Your task to perform on an android device: Search for sushi restaurants on Maps Image 0: 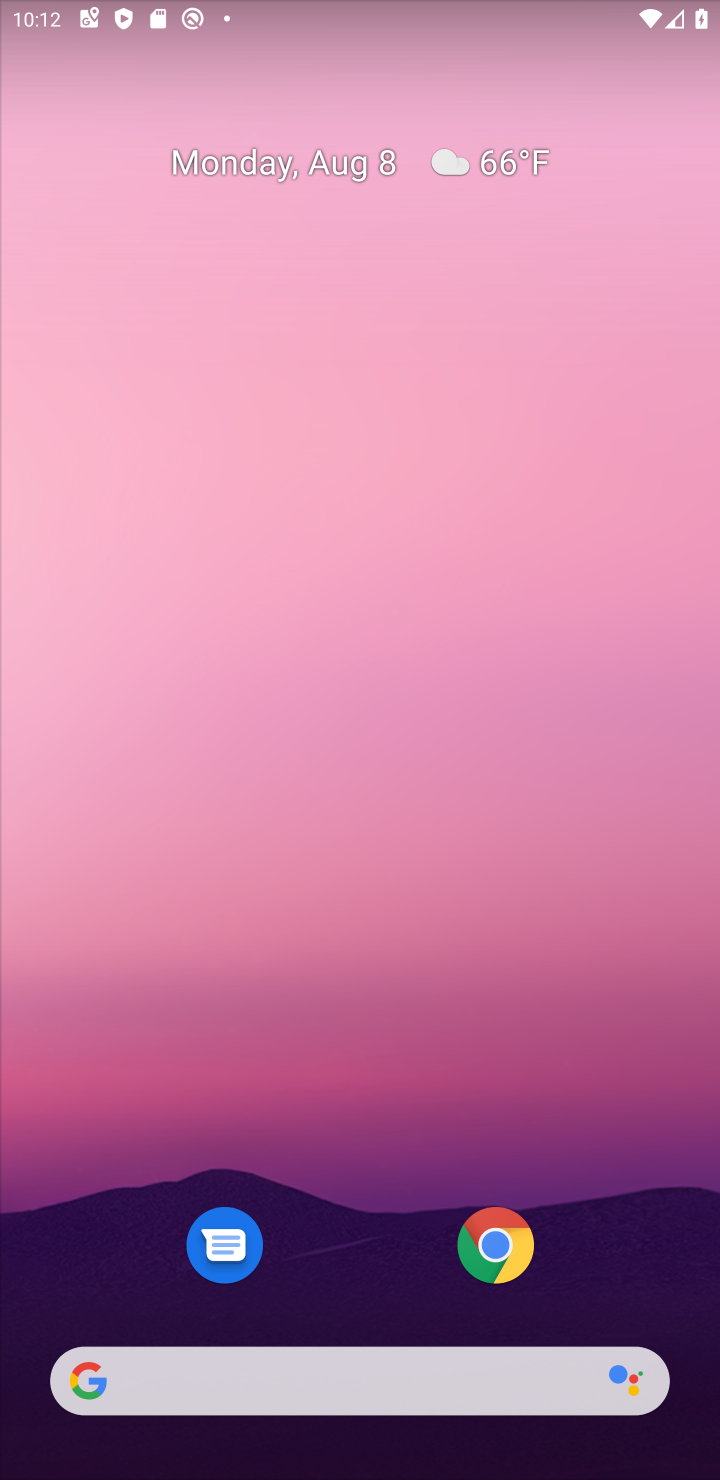
Step 0: drag from (361, 1127) to (390, 59)
Your task to perform on an android device: Search for sushi restaurants on Maps Image 1: 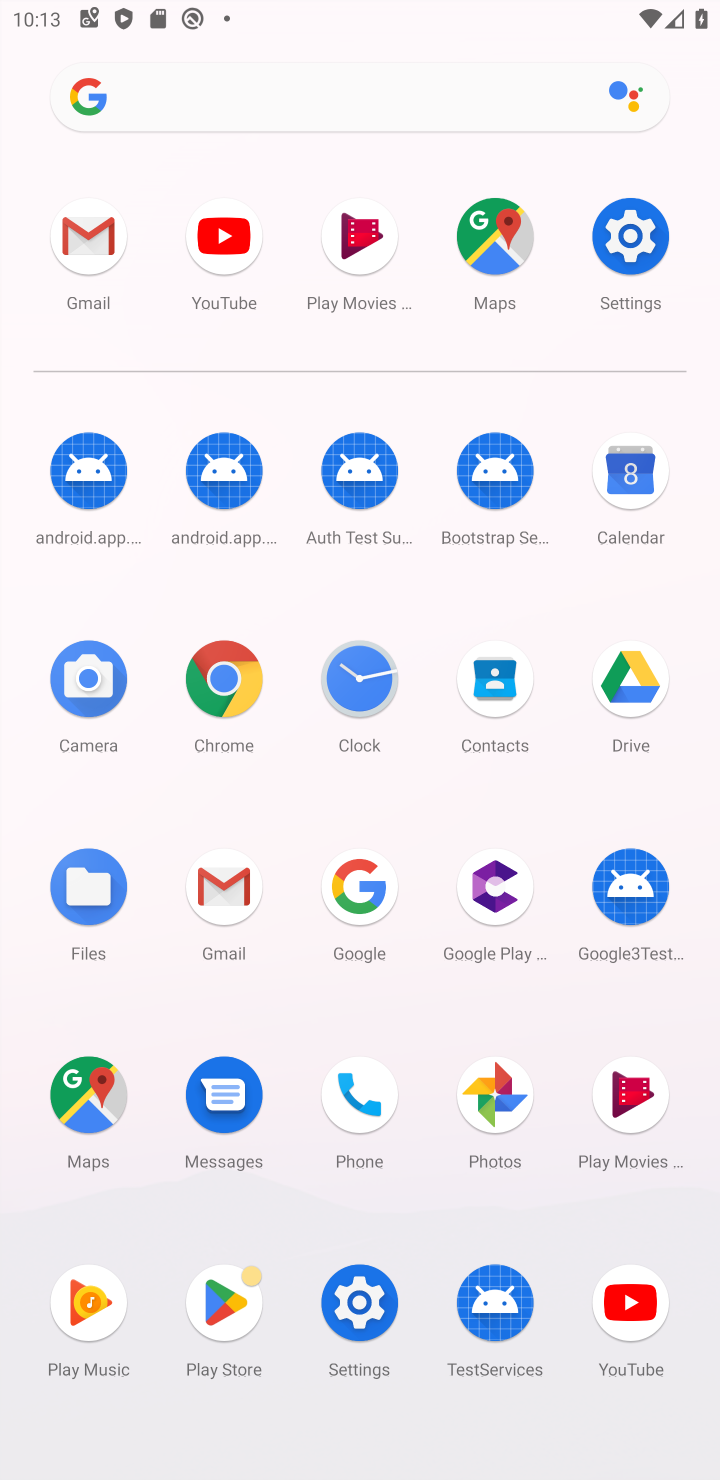
Step 1: click (91, 1095)
Your task to perform on an android device: Search for sushi restaurants on Maps Image 2: 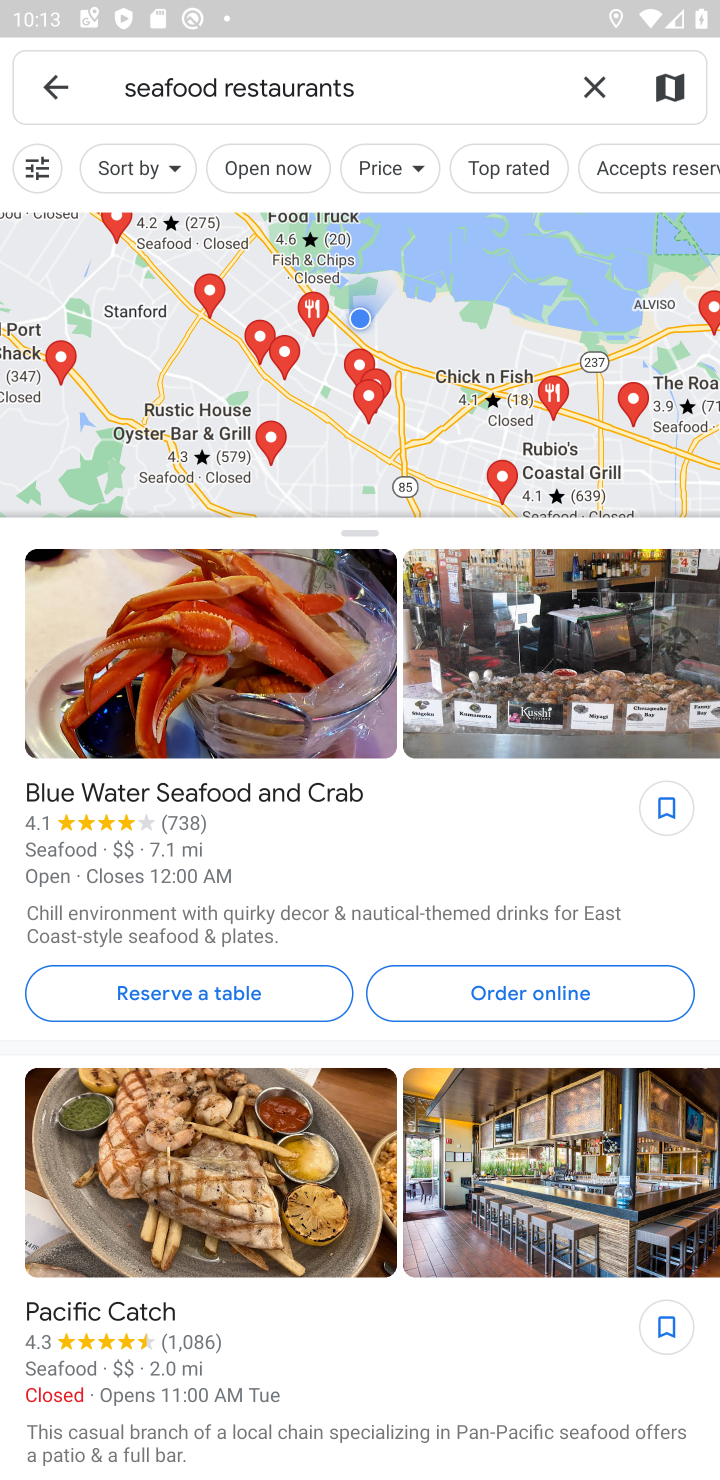
Step 2: click (595, 77)
Your task to perform on an android device: Search for sushi restaurants on Maps Image 3: 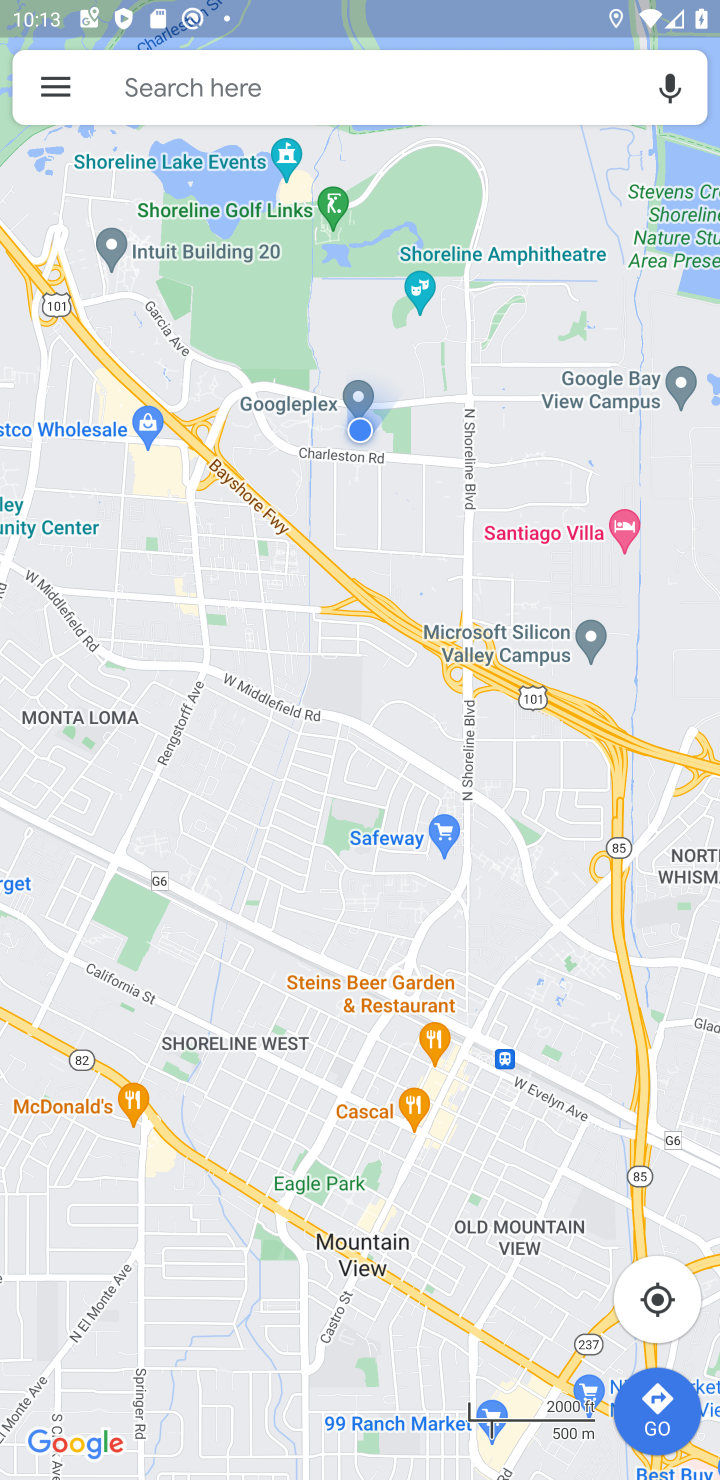
Step 3: click (286, 78)
Your task to perform on an android device: Search for sushi restaurants on Maps Image 4: 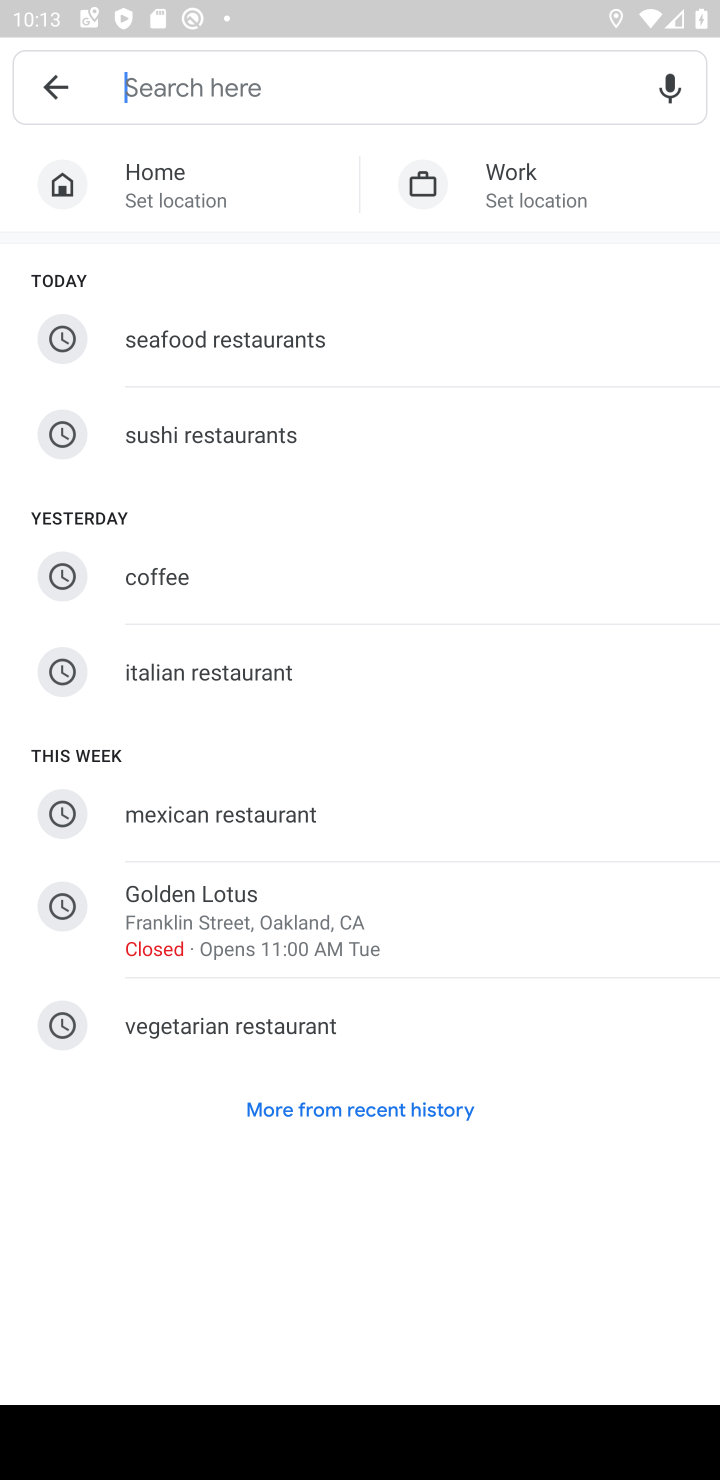
Step 4: click (187, 429)
Your task to perform on an android device: Search for sushi restaurants on Maps Image 5: 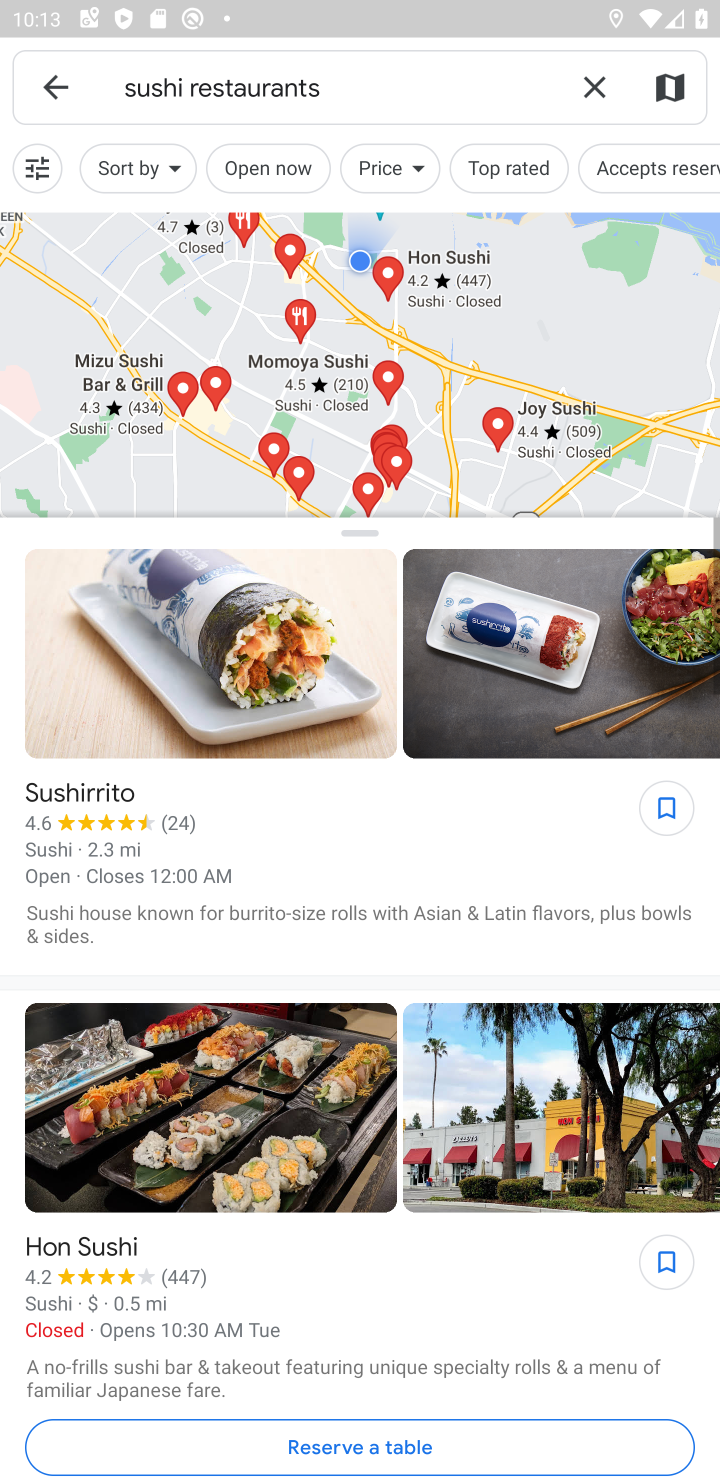
Step 5: task complete